Your task to perform on an android device: check google app version Image 0: 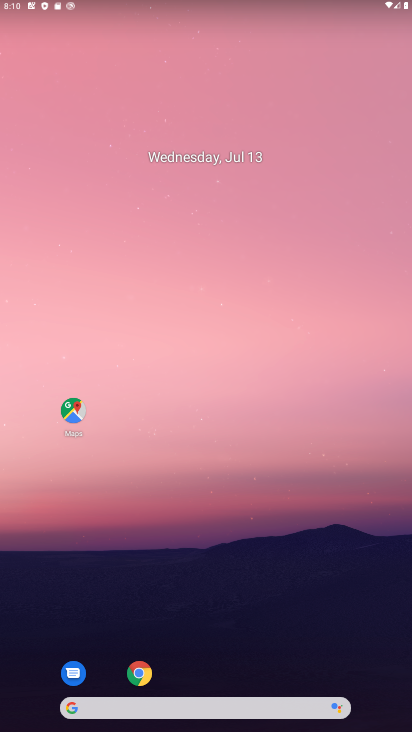
Step 0: drag from (275, 605) to (185, 141)
Your task to perform on an android device: check google app version Image 1: 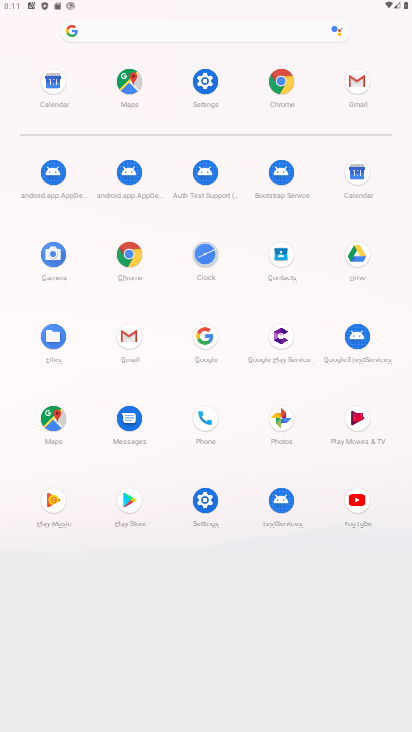
Step 1: click (210, 336)
Your task to perform on an android device: check google app version Image 2: 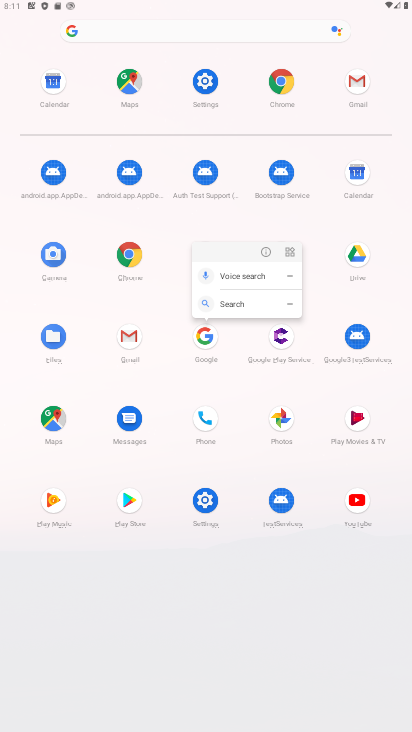
Step 2: click (267, 248)
Your task to perform on an android device: check google app version Image 3: 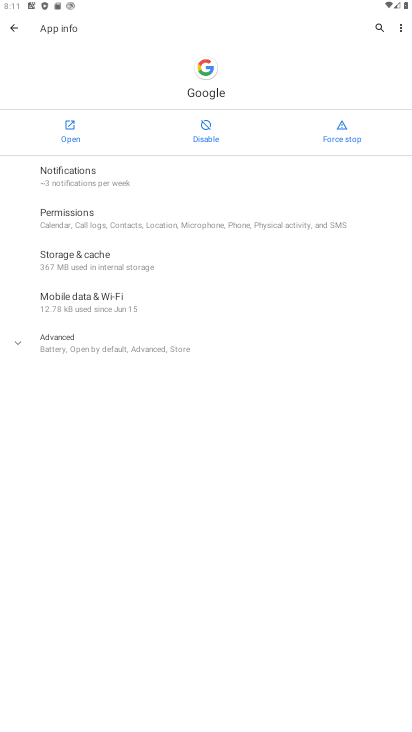
Step 3: click (153, 359)
Your task to perform on an android device: check google app version Image 4: 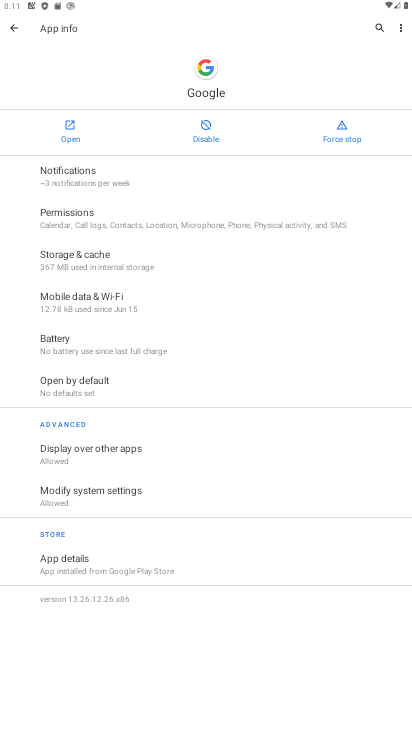
Step 4: task complete